Your task to perform on an android device: Open internet settings Image 0: 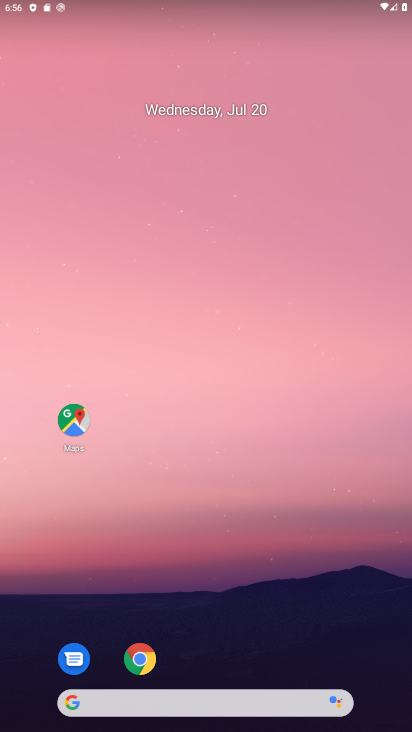
Step 0: drag from (209, 725) to (179, 169)
Your task to perform on an android device: Open internet settings Image 1: 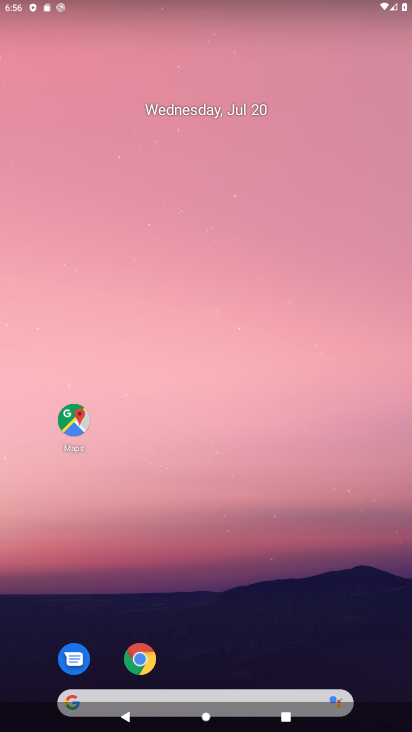
Step 1: drag from (247, 622) to (232, 16)
Your task to perform on an android device: Open internet settings Image 2: 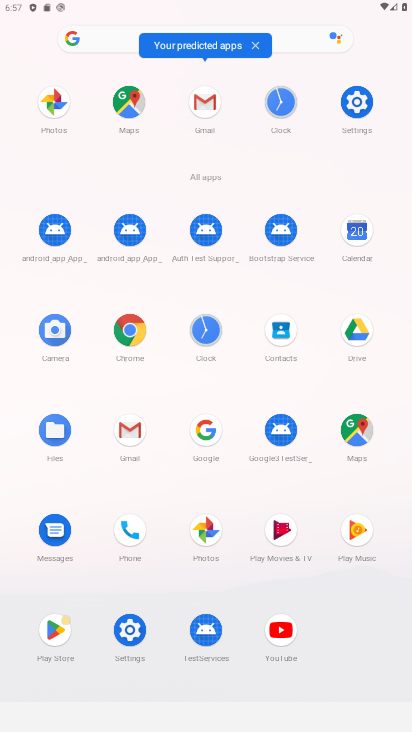
Step 2: drag from (128, 632) to (269, 633)
Your task to perform on an android device: Open internet settings Image 3: 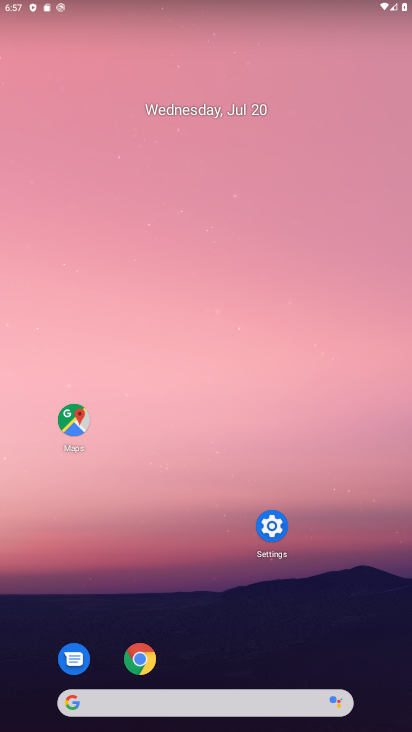
Step 3: click (274, 516)
Your task to perform on an android device: Open internet settings Image 4: 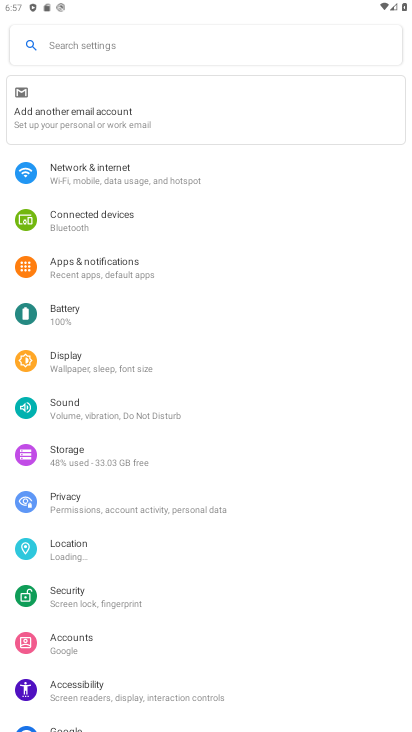
Step 4: click (110, 179)
Your task to perform on an android device: Open internet settings Image 5: 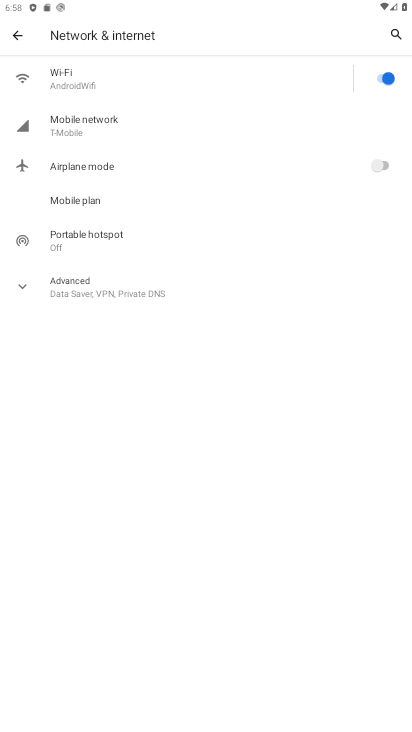
Step 5: task complete